Your task to perform on an android device: see sites visited before in the chrome app Image 0: 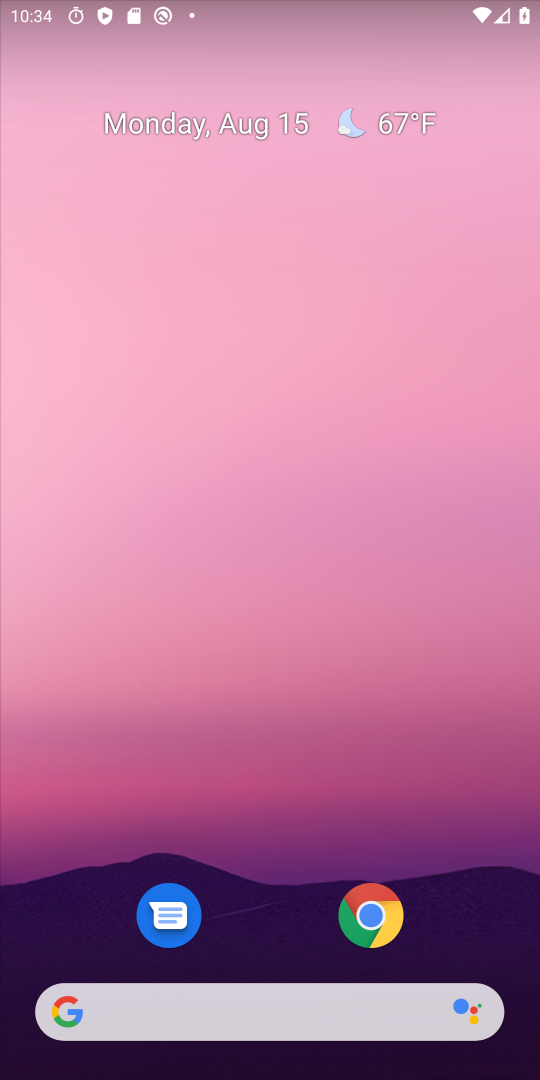
Step 0: click (386, 649)
Your task to perform on an android device: see sites visited before in the chrome app Image 1: 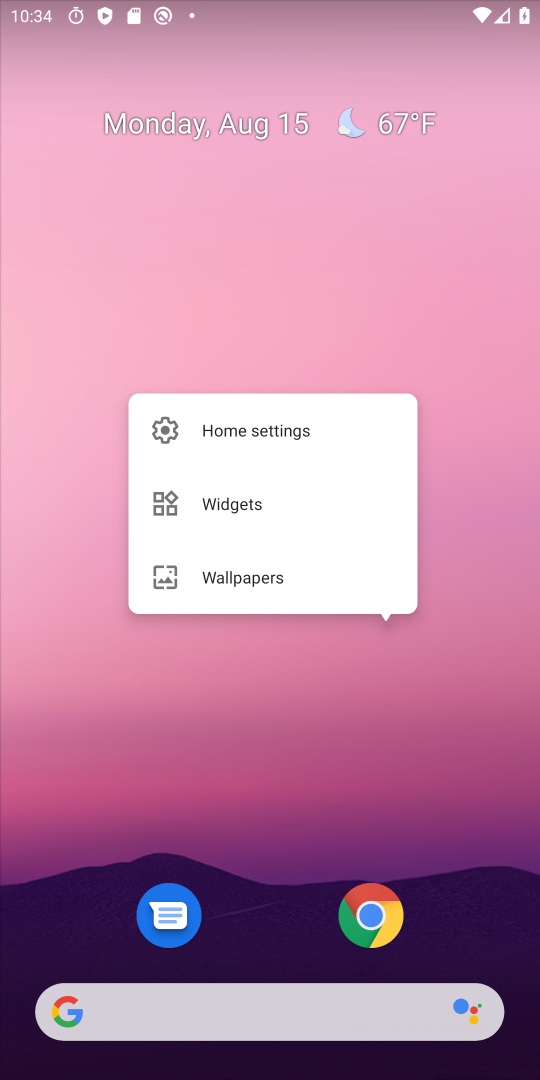
Step 1: drag from (386, 649) to (453, 839)
Your task to perform on an android device: see sites visited before in the chrome app Image 2: 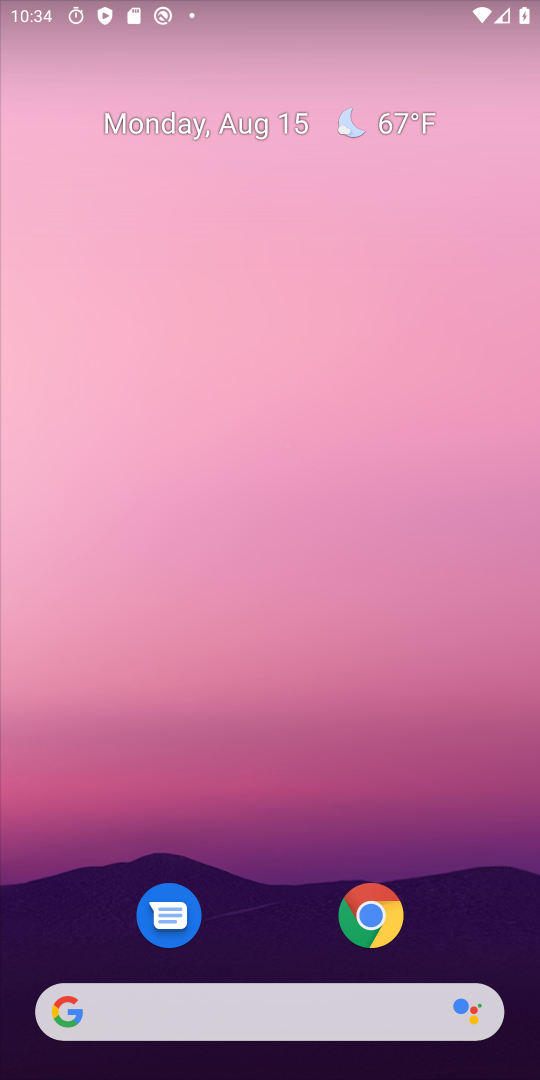
Step 2: drag from (453, 839) to (383, 920)
Your task to perform on an android device: see sites visited before in the chrome app Image 3: 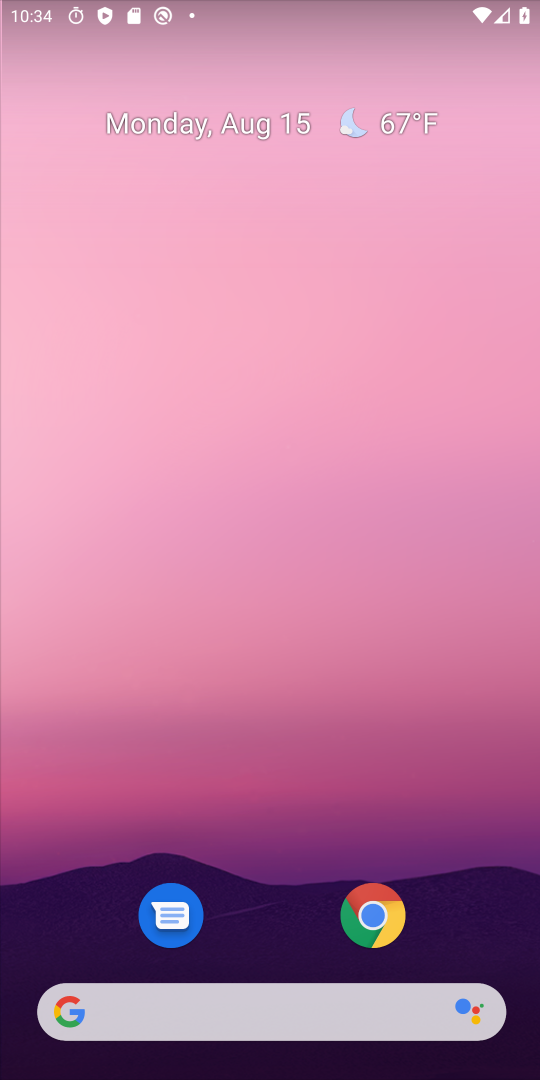
Step 3: click (383, 920)
Your task to perform on an android device: see sites visited before in the chrome app Image 4: 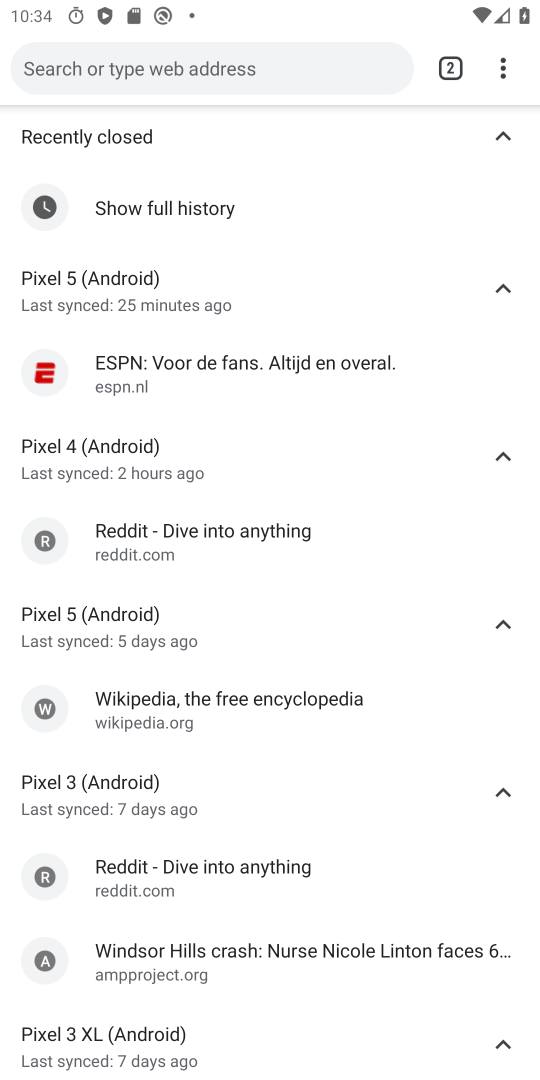
Step 4: drag from (383, 920) to (497, 658)
Your task to perform on an android device: see sites visited before in the chrome app Image 5: 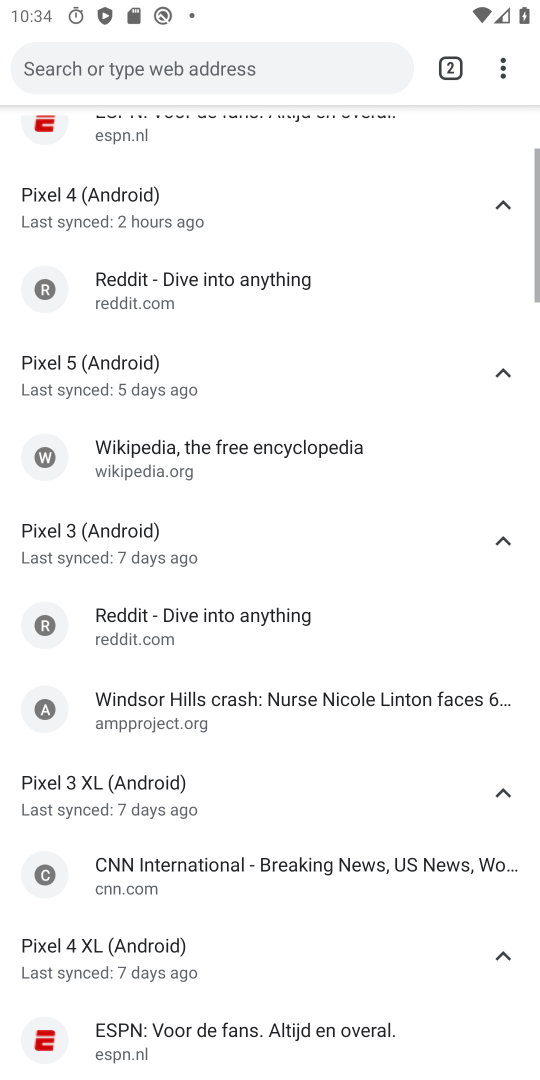
Step 5: drag from (497, 658) to (509, 61)
Your task to perform on an android device: see sites visited before in the chrome app Image 6: 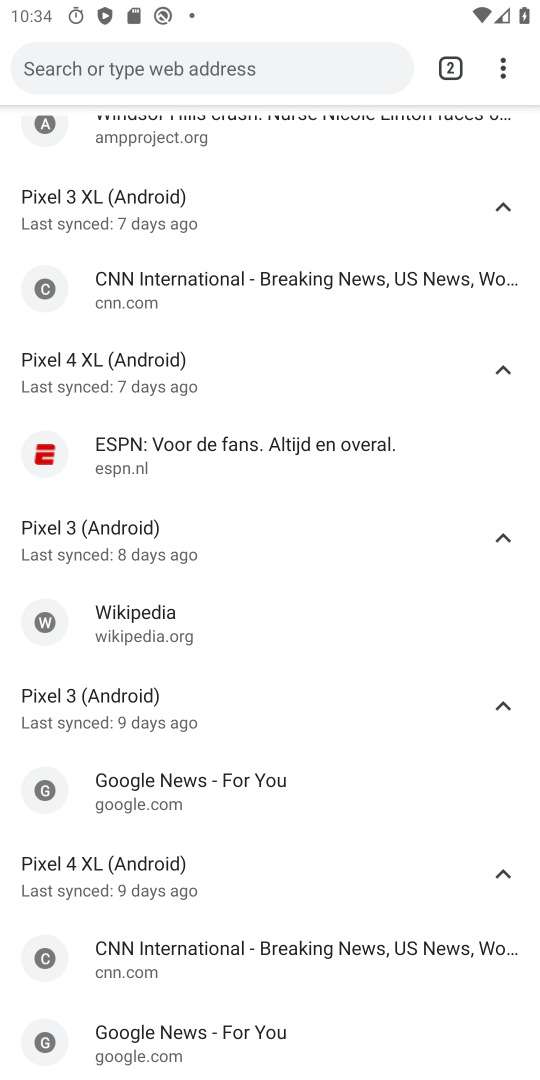
Step 6: click (509, 61)
Your task to perform on an android device: see sites visited before in the chrome app Image 7: 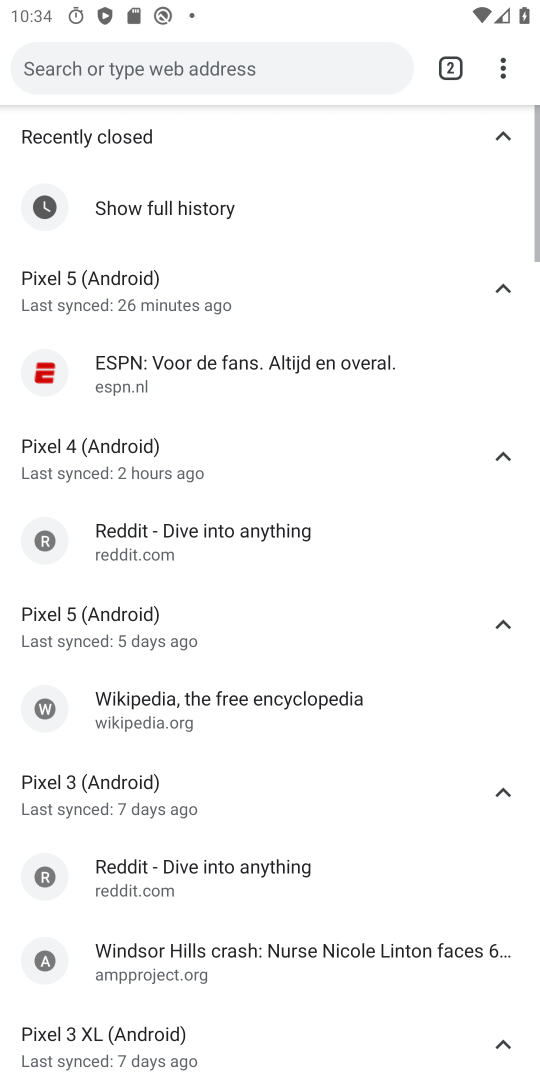
Step 7: click (506, 77)
Your task to perform on an android device: see sites visited before in the chrome app Image 8: 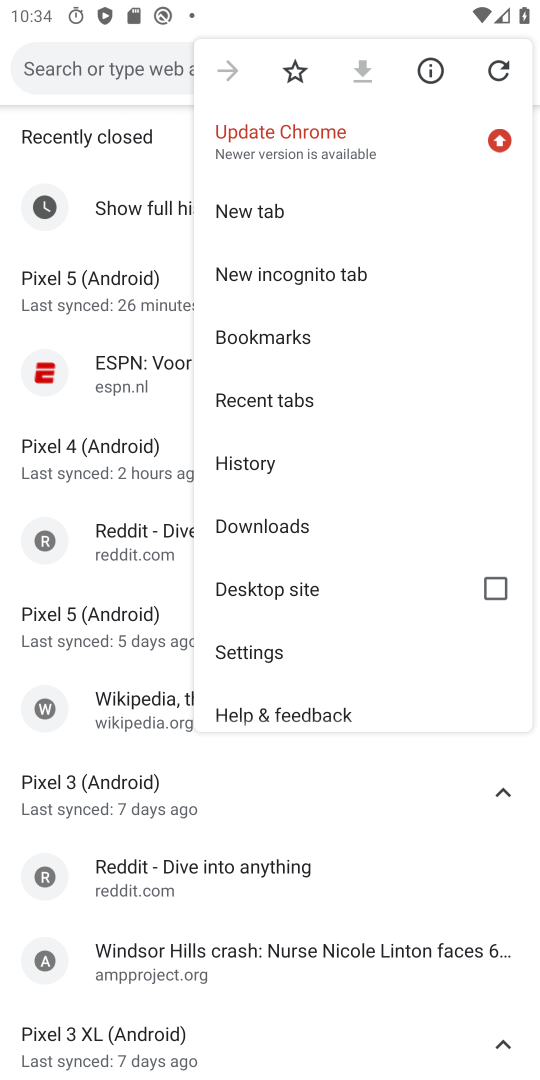
Step 8: click (249, 454)
Your task to perform on an android device: see sites visited before in the chrome app Image 9: 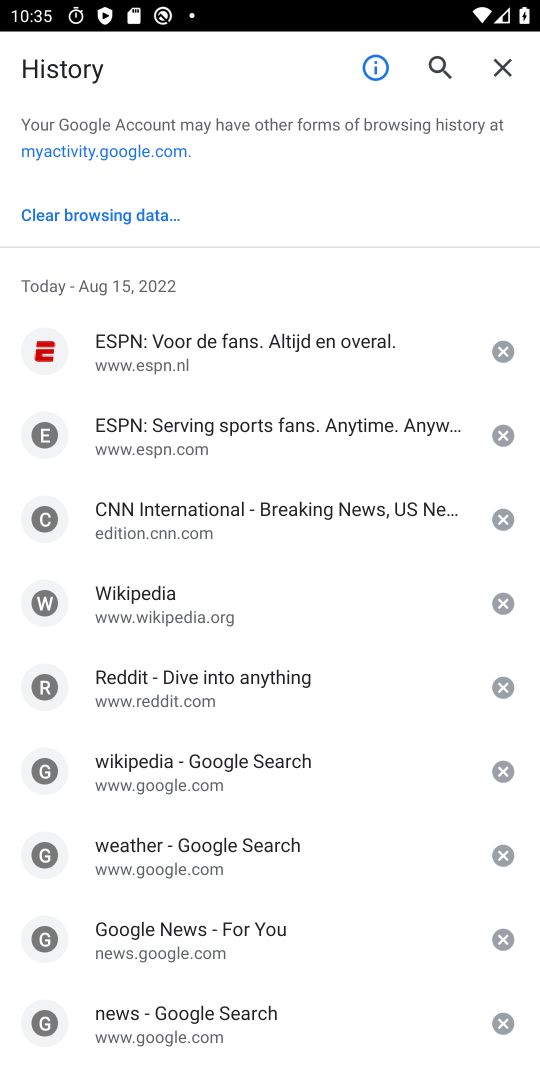
Step 9: task complete